Your task to perform on an android device: change the clock display to digital Image 0: 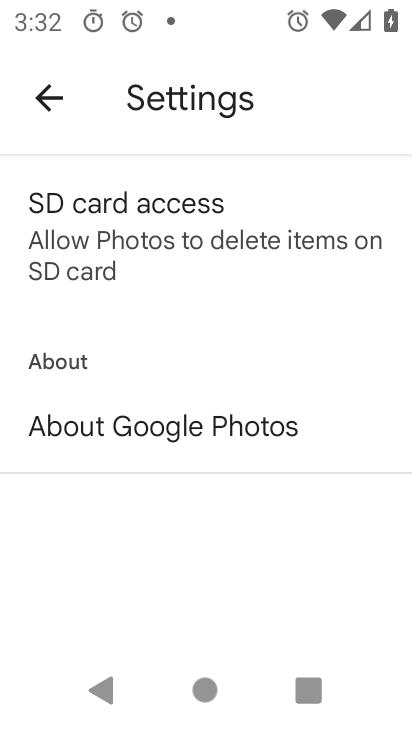
Step 0: press home button
Your task to perform on an android device: change the clock display to digital Image 1: 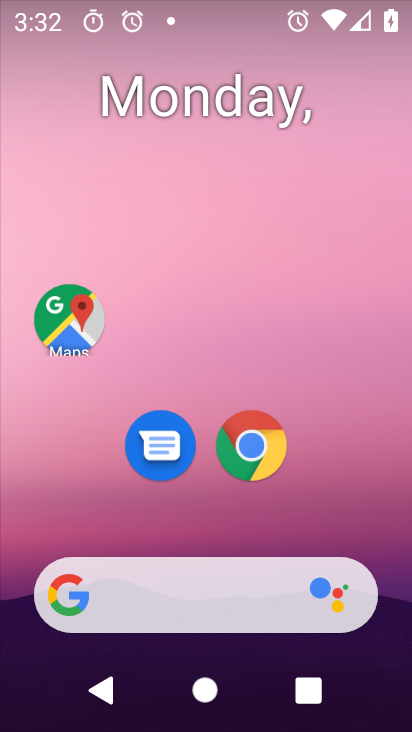
Step 1: drag from (134, 605) to (191, 239)
Your task to perform on an android device: change the clock display to digital Image 2: 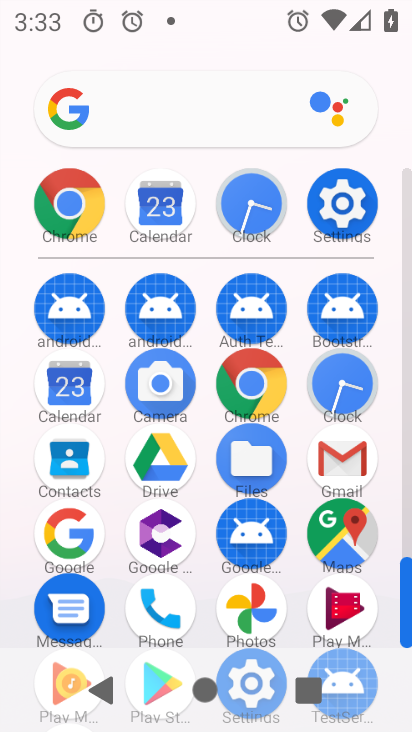
Step 2: click (353, 388)
Your task to perform on an android device: change the clock display to digital Image 3: 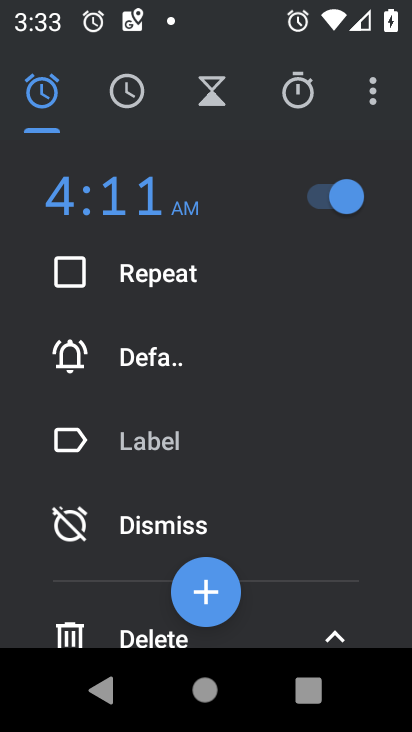
Step 3: click (353, 115)
Your task to perform on an android device: change the clock display to digital Image 4: 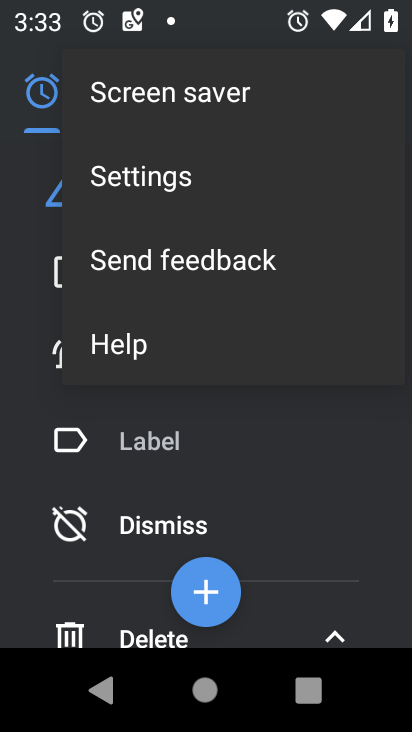
Step 4: click (185, 178)
Your task to perform on an android device: change the clock display to digital Image 5: 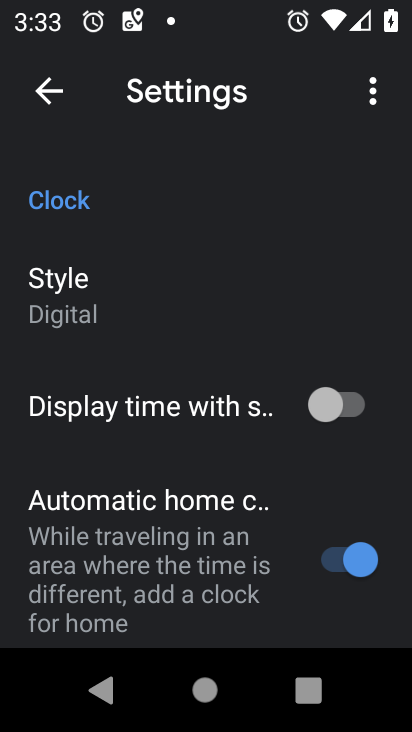
Step 5: click (127, 309)
Your task to perform on an android device: change the clock display to digital Image 6: 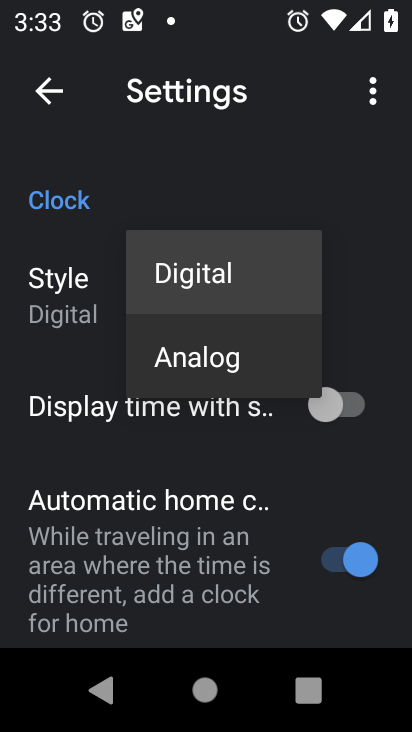
Step 6: click (167, 304)
Your task to perform on an android device: change the clock display to digital Image 7: 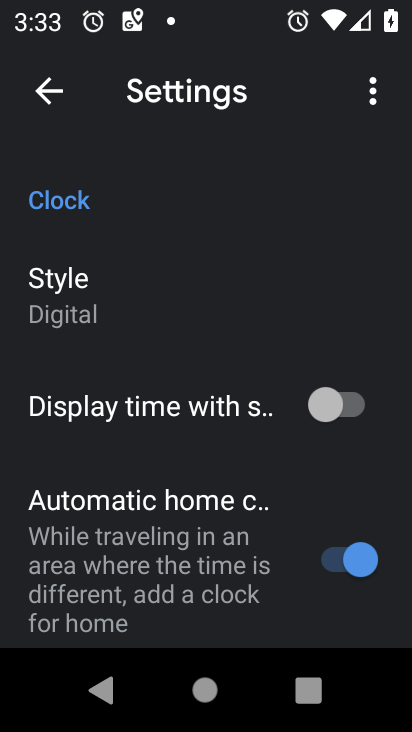
Step 7: task complete